Your task to perform on an android device: turn on data saver in the chrome app Image 0: 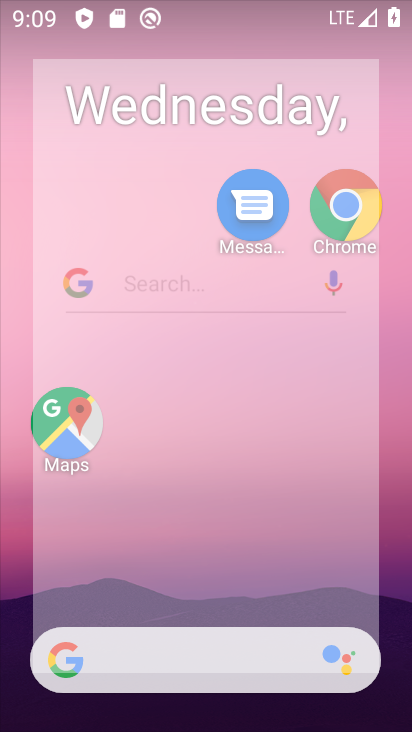
Step 0: drag from (232, 360) to (262, 132)
Your task to perform on an android device: turn on data saver in the chrome app Image 1: 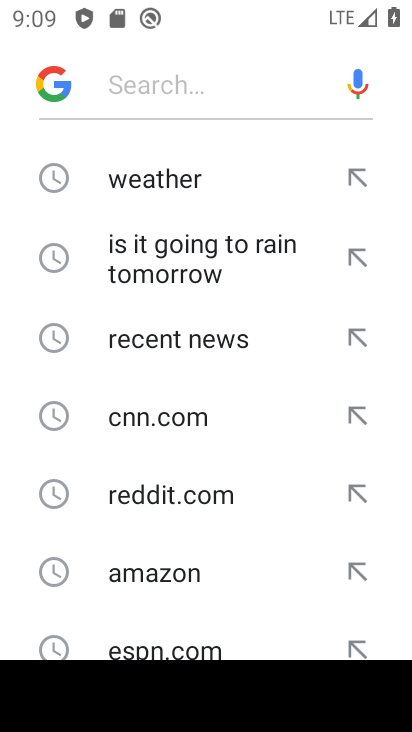
Step 1: press home button
Your task to perform on an android device: turn on data saver in the chrome app Image 2: 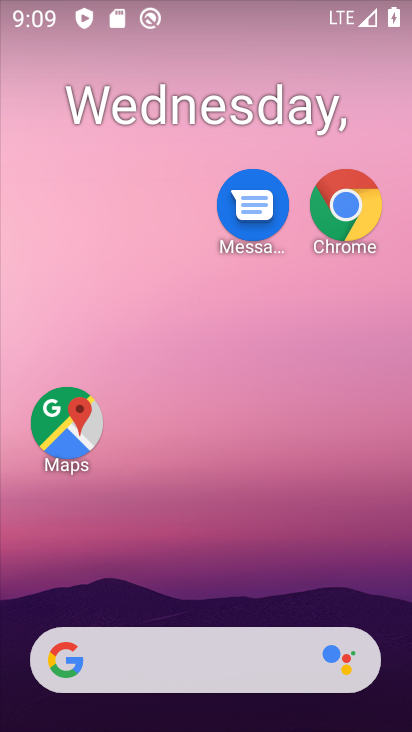
Step 2: click (349, 202)
Your task to perform on an android device: turn on data saver in the chrome app Image 3: 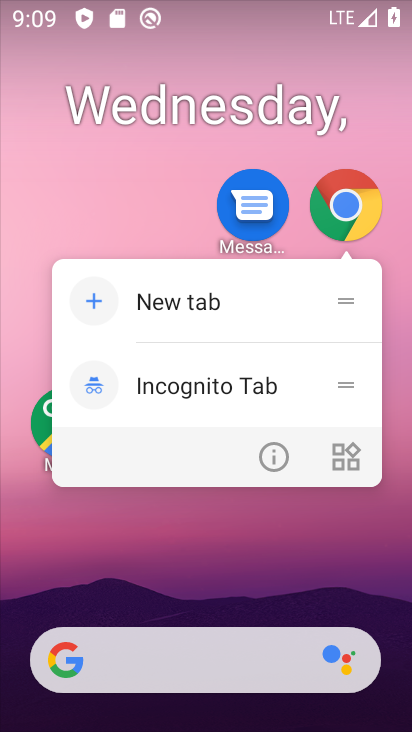
Step 3: click (271, 447)
Your task to perform on an android device: turn on data saver in the chrome app Image 4: 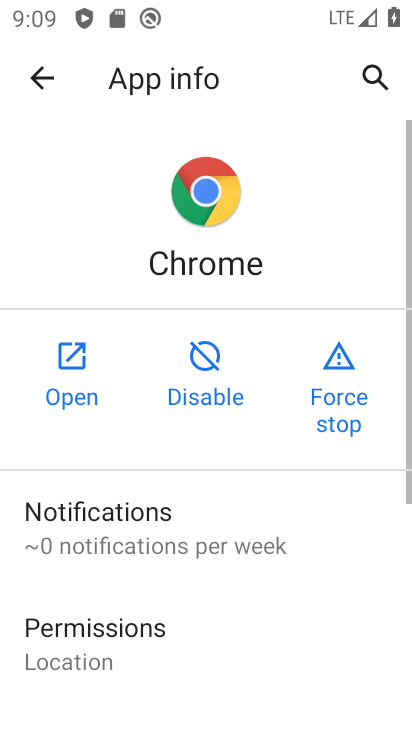
Step 4: click (87, 367)
Your task to perform on an android device: turn on data saver in the chrome app Image 5: 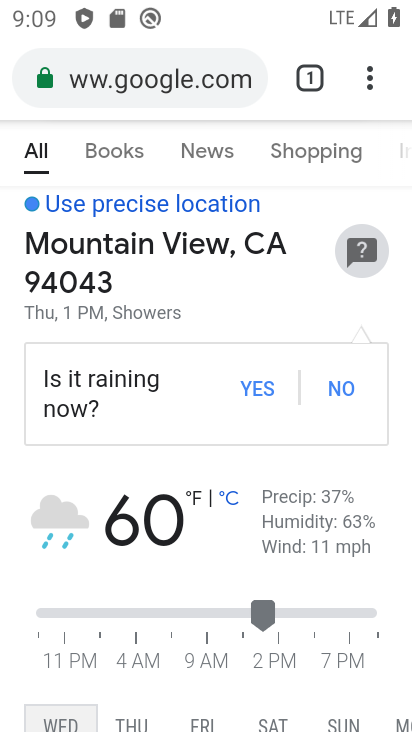
Step 5: drag from (371, 78) to (152, 615)
Your task to perform on an android device: turn on data saver in the chrome app Image 6: 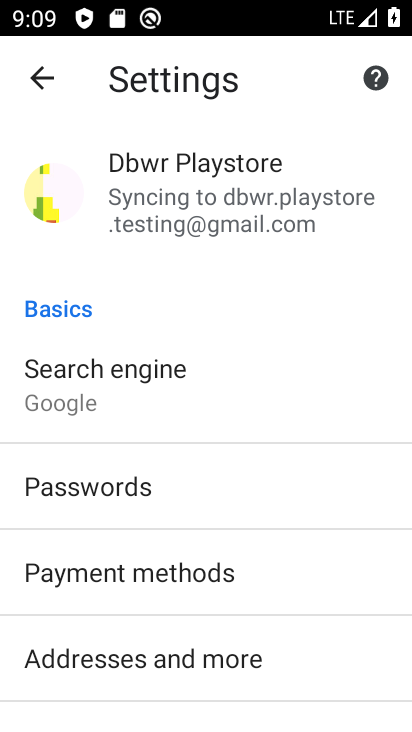
Step 6: drag from (187, 582) to (311, 86)
Your task to perform on an android device: turn on data saver in the chrome app Image 7: 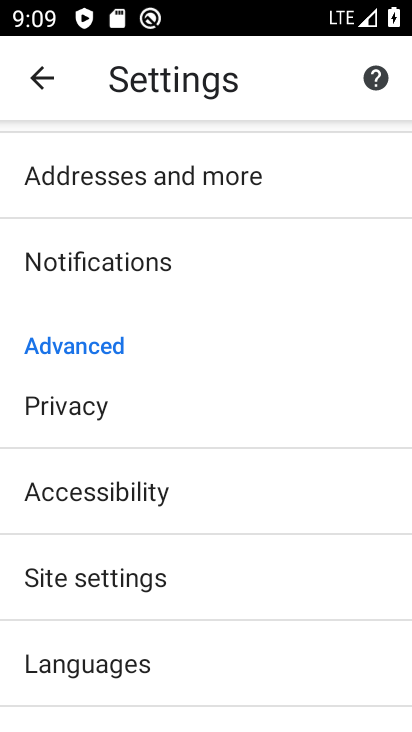
Step 7: drag from (190, 612) to (295, 276)
Your task to perform on an android device: turn on data saver in the chrome app Image 8: 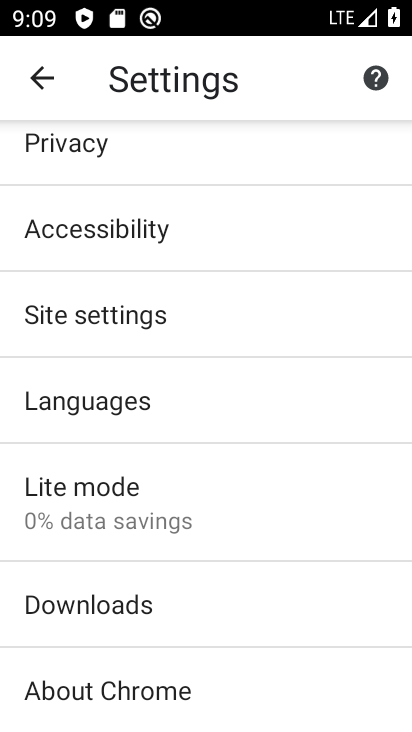
Step 8: click (153, 482)
Your task to perform on an android device: turn on data saver in the chrome app Image 9: 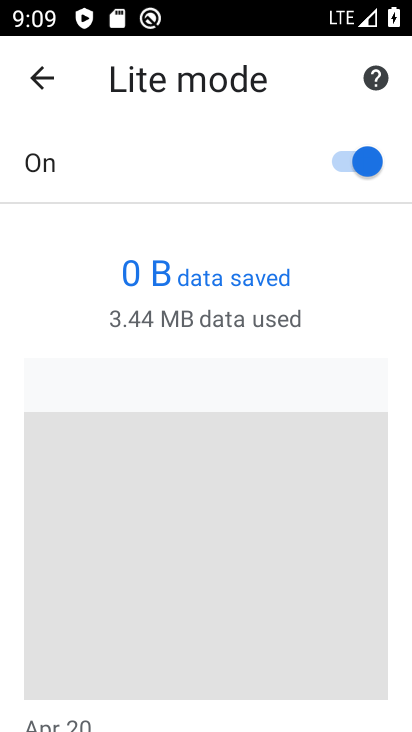
Step 9: task complete